Your task to perform on an android device: turn off javascript in the chrome app Image 0: 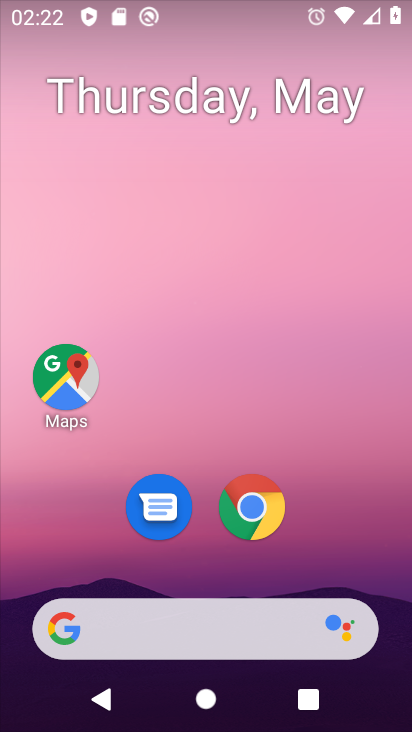
Step 0: click (254, 627)
Your task to perform on an android device: turn off javascript in the chrome app Image 1: 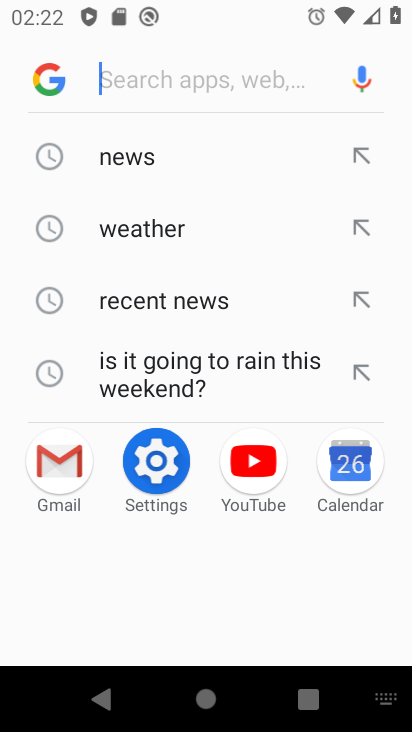
Step 1: click (148, 227)
Your task to perform on an android device: turn off javascript in the chrome app Image 2: 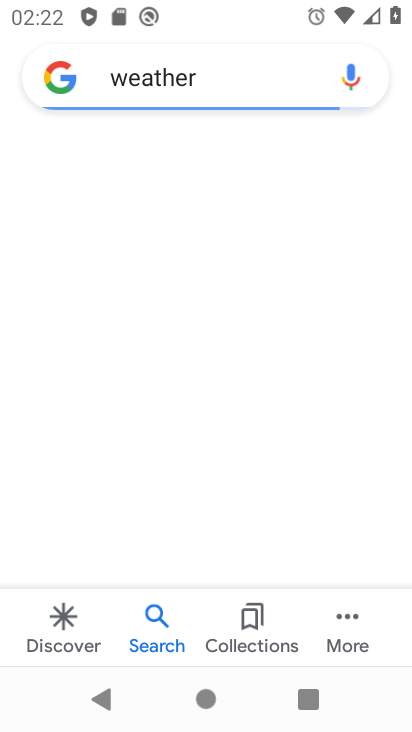
Step 2: task complete